Your task to perform on an android device: Open network settings Image 0: 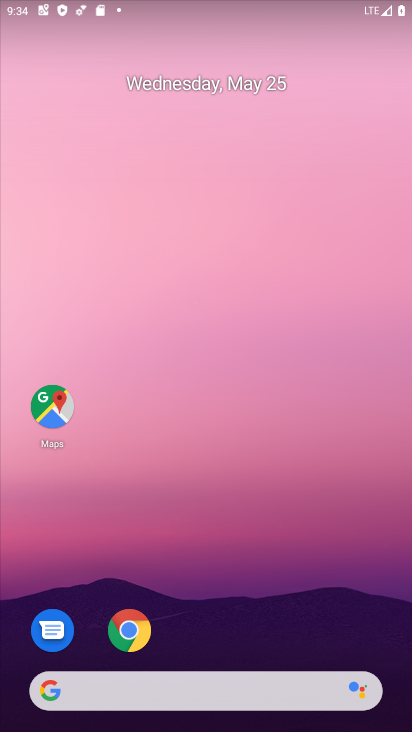
Step 0: drag from (199, 632) to (273, 100)
Your task to perform on an android device: Open network settings Image 1: 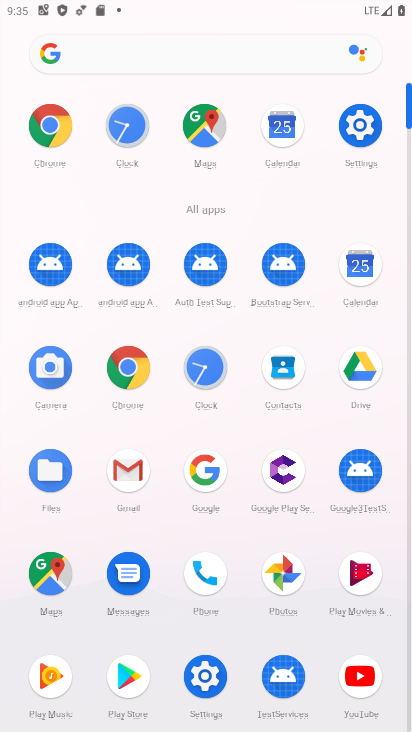
Step 1: click (353, 129)
Your task to perform on an android device: Open network settings Image 2: 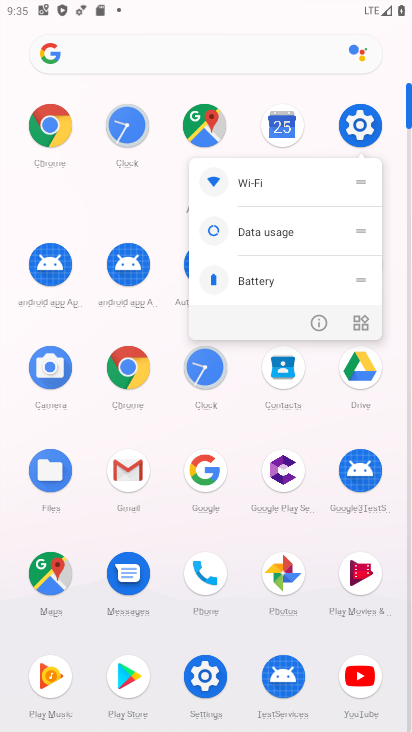
Step 2: click (358, 125)
Your task to perform on an android device: Open network settings Image 3: 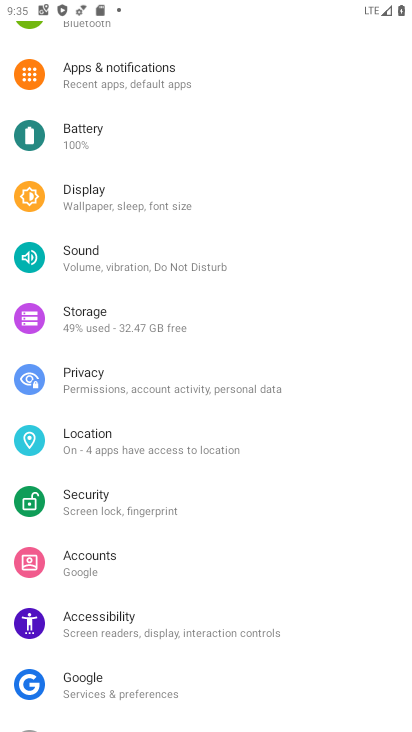
Step 3: drag from (309, 135) to (212, 609)
Your task to perform on an android device: Open network settings Image 4: 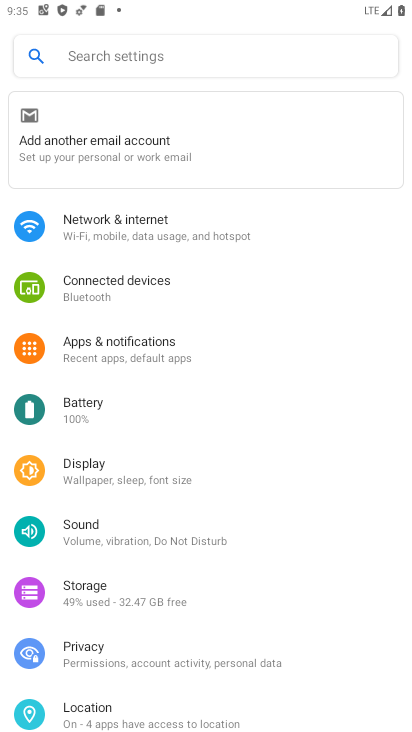
Step 4: click (146, 220)
Your task to perform on an android device: Open network settings Image 5: 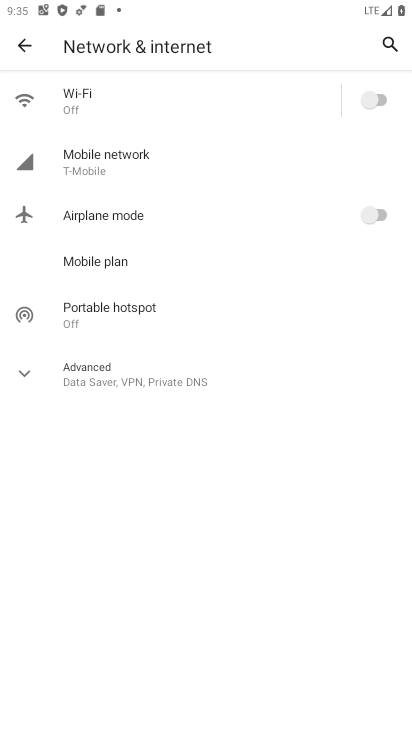
Step 5: task complete